Your task to perform on an android device: Open CNN.com Image 0: 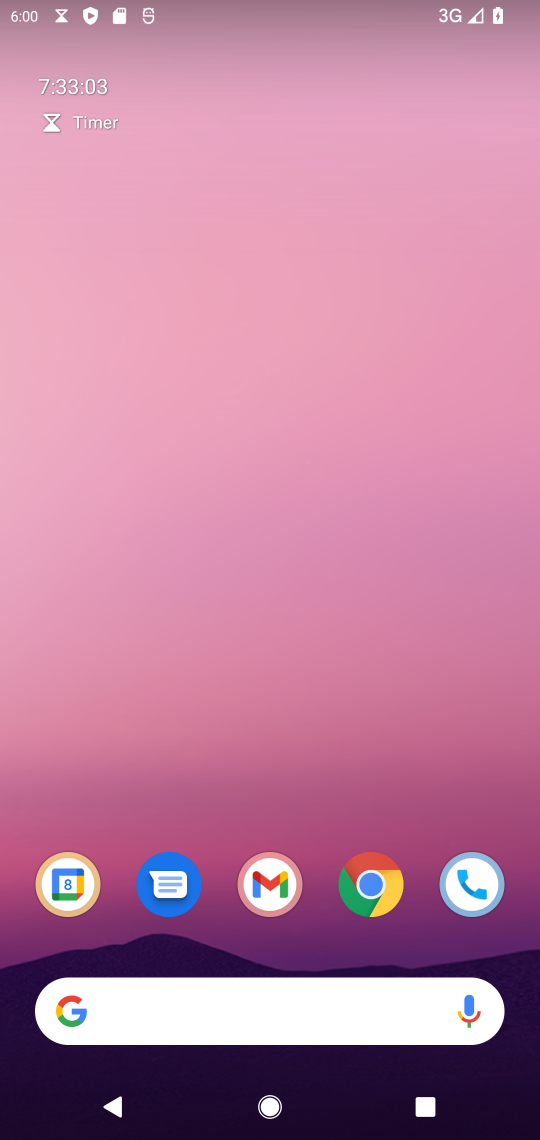
Step 0: click (361, 886)
Your task to perform on an android device: Open CNN.com Image 1: 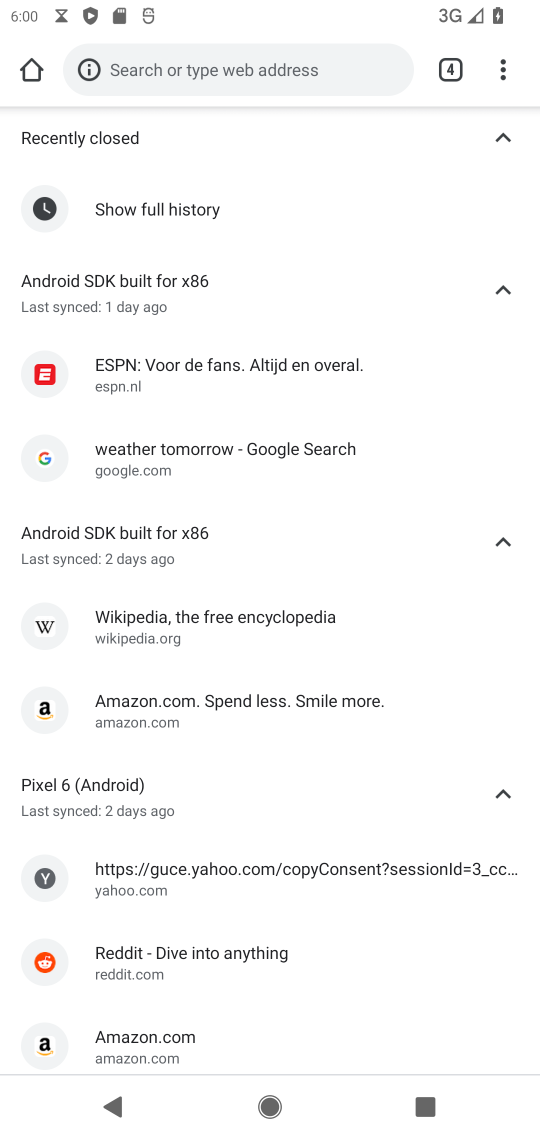
Step 1: click (215, 73)
Your task to perform on an android device: Open CNN.com Image 2: 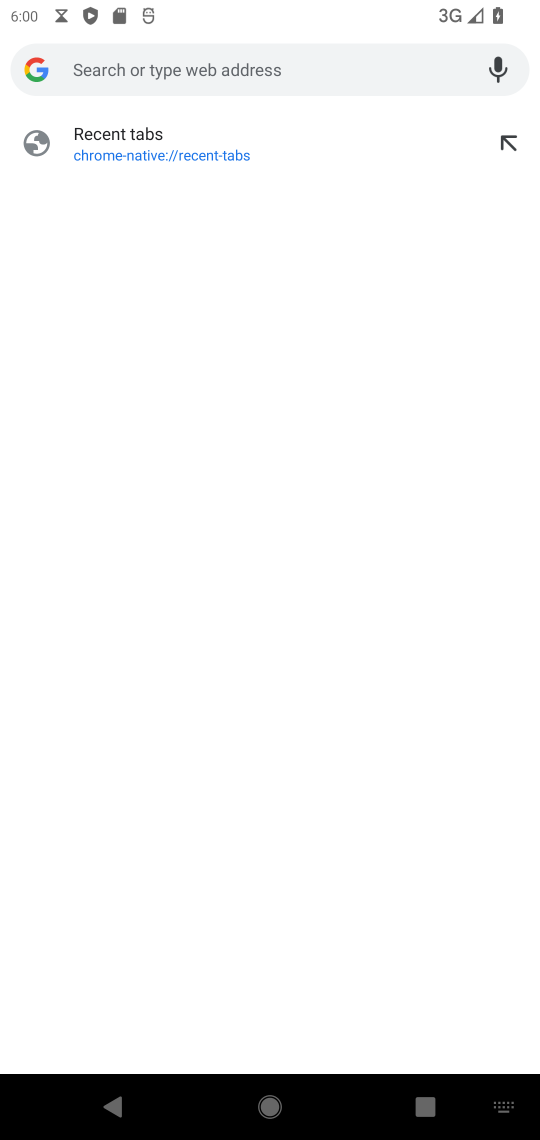
Step 2: type "CNN.com"
Your task to perform on an android device: Open CNN.com Image 3: 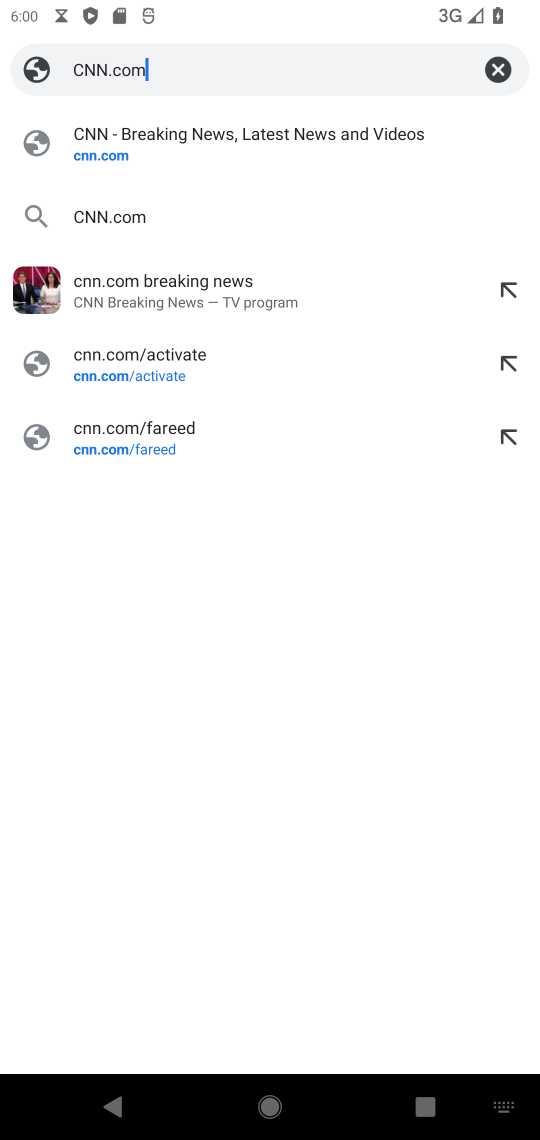
Step 3: click (249, 139)
Your task to perform on an android device: Open CNN.com Image 4: 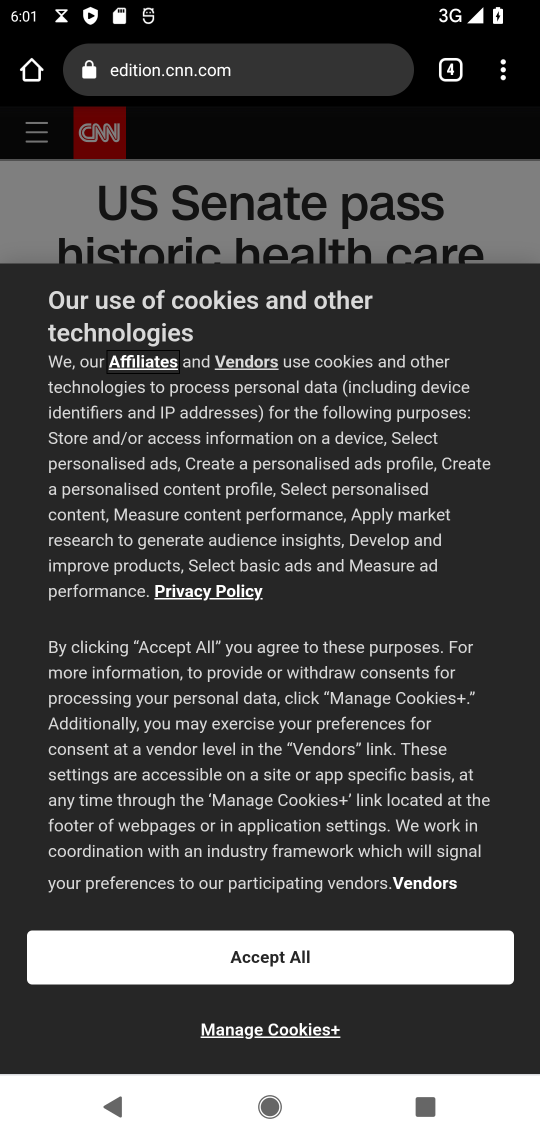
Step 4: task complete